Your task to perform on an android device: Go to location settings Image 0: 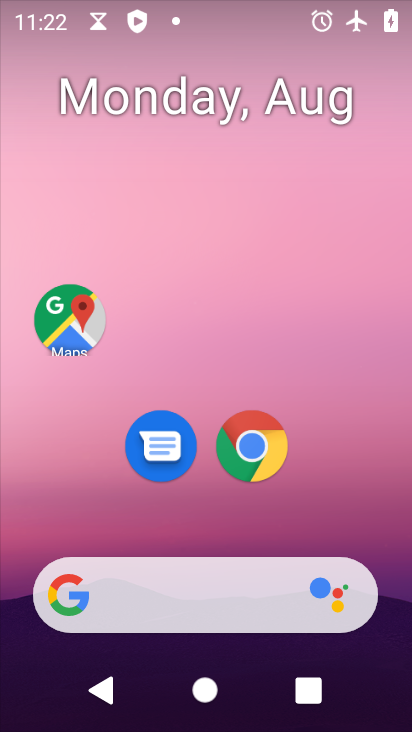
Step 0: drag from (228, 72) to (389, 11)
Your task to perform on an android device: Go to location settings Image 1: 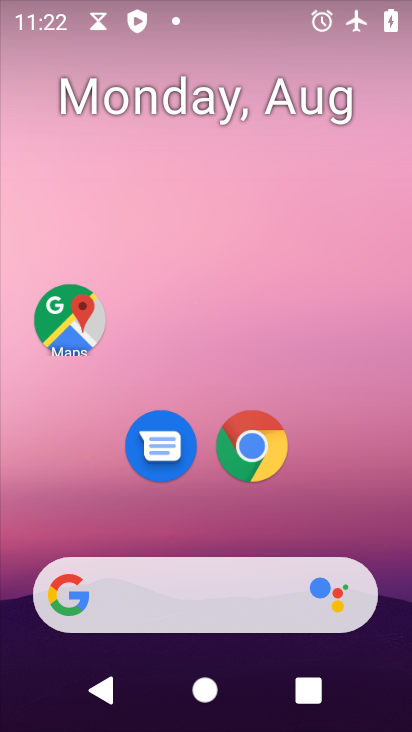
Step 1: drag from (205, 429) to (366, 660)
Your task to perform on an android device: Go to location settings Image 2: 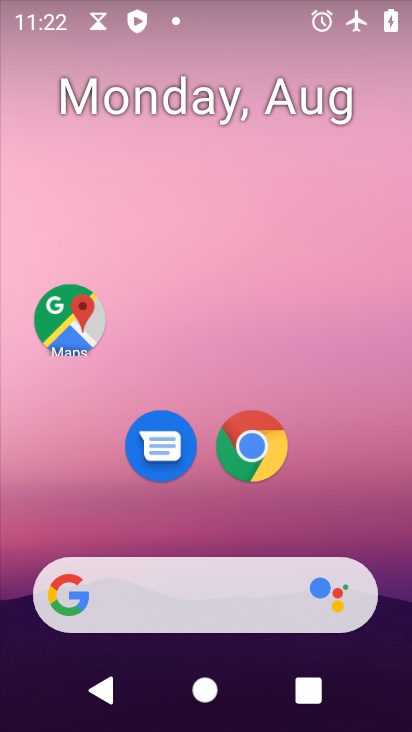
Step 2: drag from (211, 381) to (353, 1)
Your task to perform on an android device: Go to location settings Image 3: 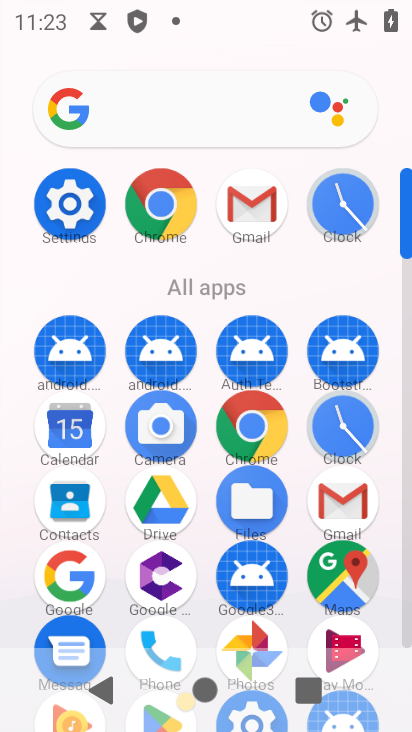
Step 3: click (58, 210)
Your task to perform on an android device: Go to location settings Image 4: 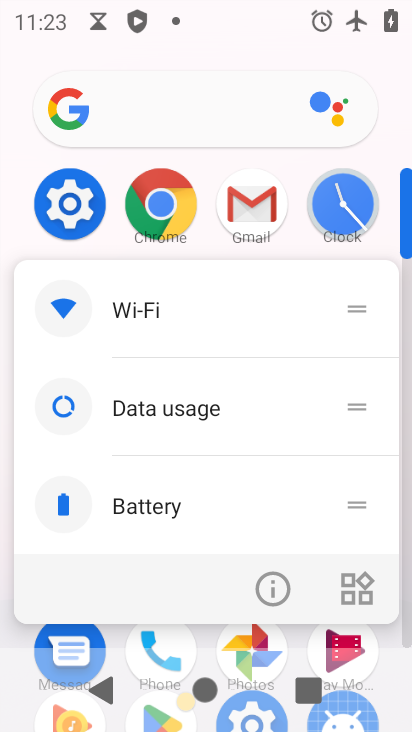
Step 4: click (41, 197)
Your task to perform on an android device: Go to location settings Image 5: 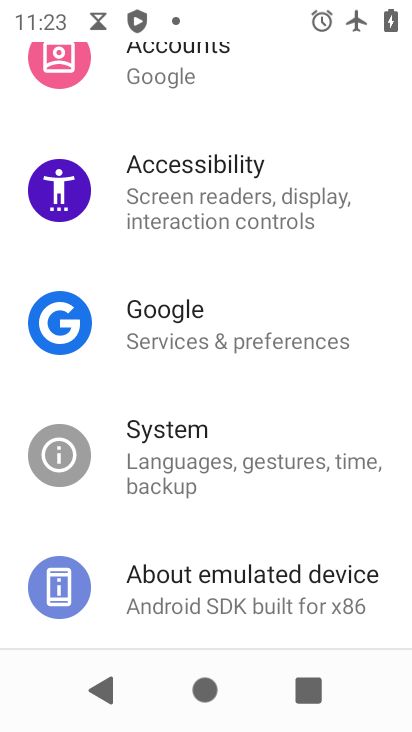
Step 5: drag from (245, 322) to (210, 547)
Your task to perform on an android device: Go to location settings Image 6: 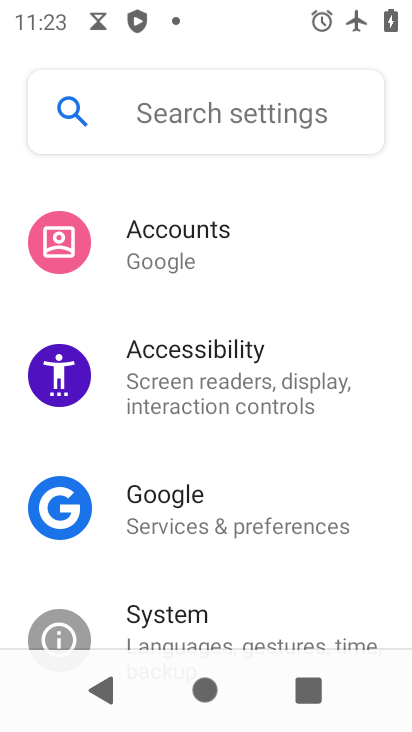
Step 6: drag from (246, 347) to (220, 575)
Your task to perform on an android device: Go to location settings Image 7: 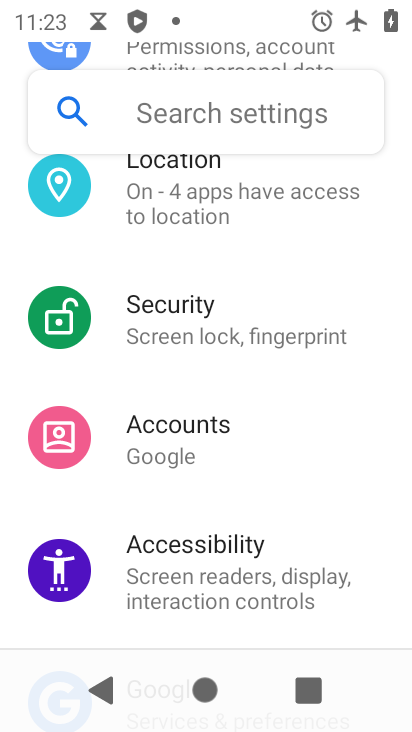
Step 7: drag from (257, 288) to (247, 591)
Your task to perform on an android device: Go to location settings Image 8: 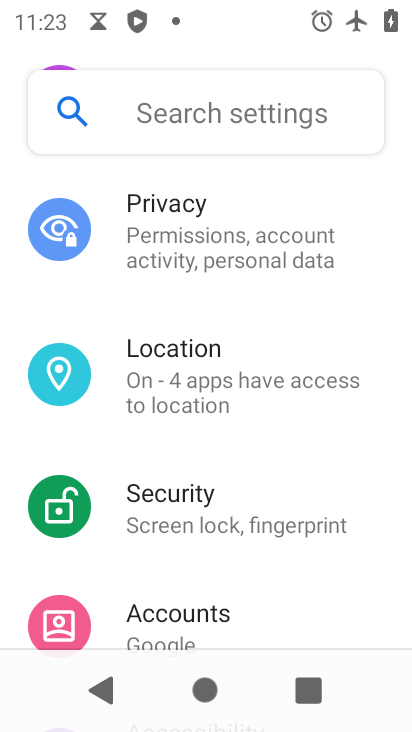
Step 8: click (225, 354)
Your task to perform on an android device: Go to location settings Image 9: 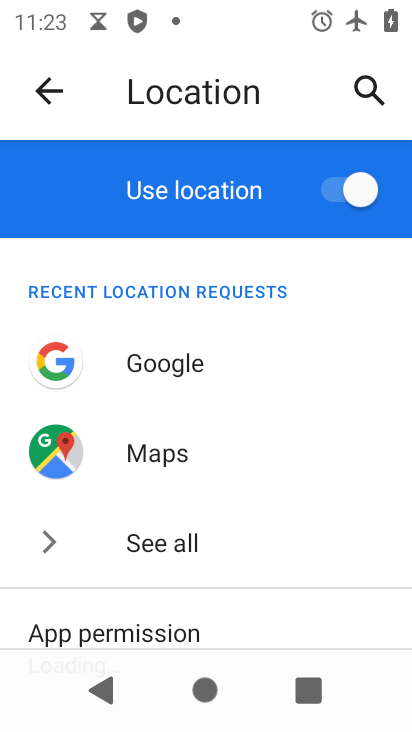
Step 9: task complete